Your task to perform on an android device: What's the weather going to be this weekend? Image 0: 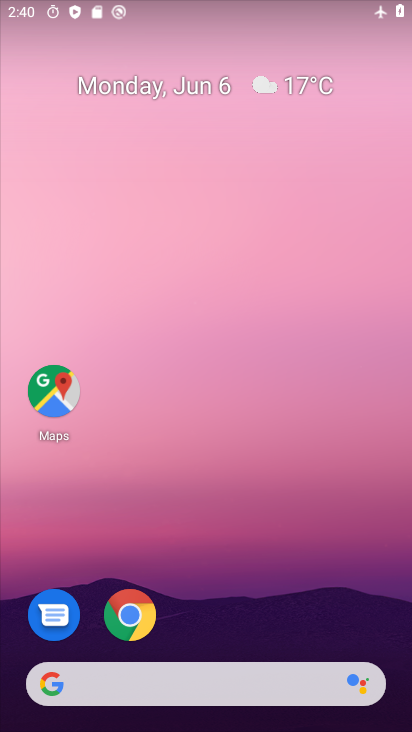
Step 0: drag from (250, 633) to (283, 176)
Your task to perform on an android device: What's the weather going to be this weekend? Image 1: 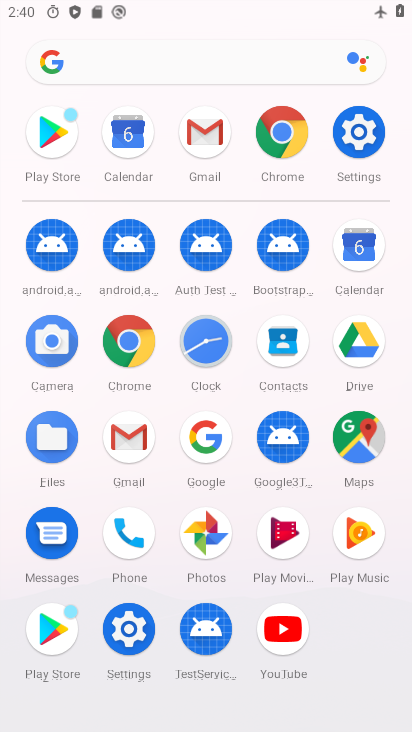
Step 1: press home button
Your task to perform on an android device: What's the weather going to be this weekend? Image 2: 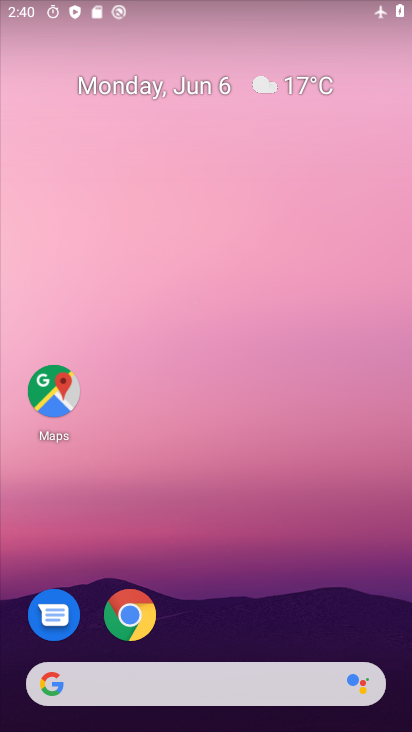
Step 2: click (206, 86)
Your task to perform on an android device: What's the weather going to be this weekend? Image 3: 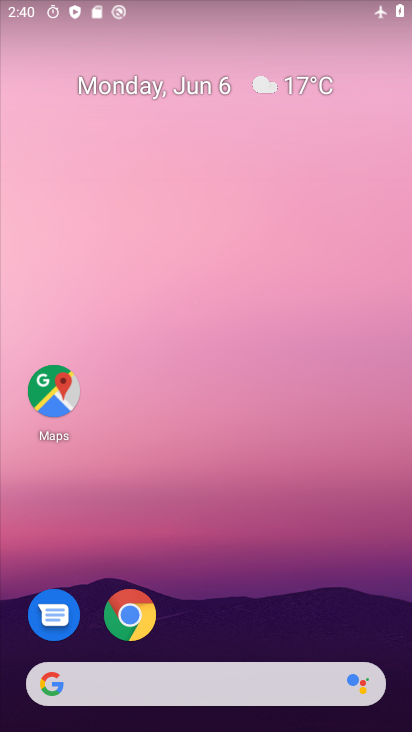
Step 3: click (300, 81)
Your task to perform on an android device: What's the weather going to be this weekend? Image 4: 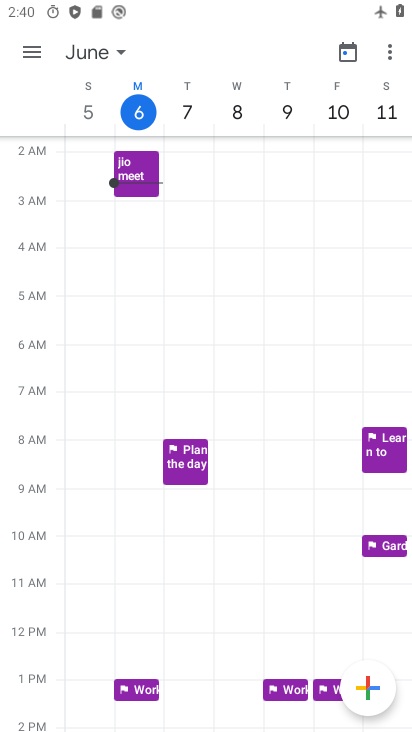
Step 4: press home button
Your task to perform on an android device: What's the weather going to be this weekend? Image 5: 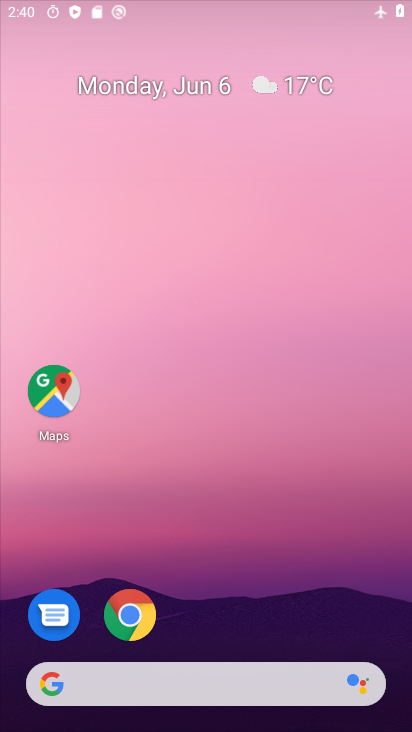
Step 5: click (286, 84)
Your task to perform on an android device: What's the weather going to be this weekend? Image 6: 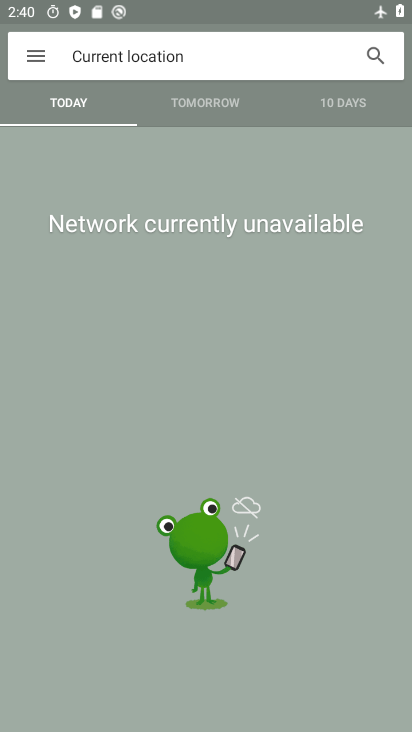
Step 6: task complete